Your task to perform on an android device: change alarm snooze length Image 0: 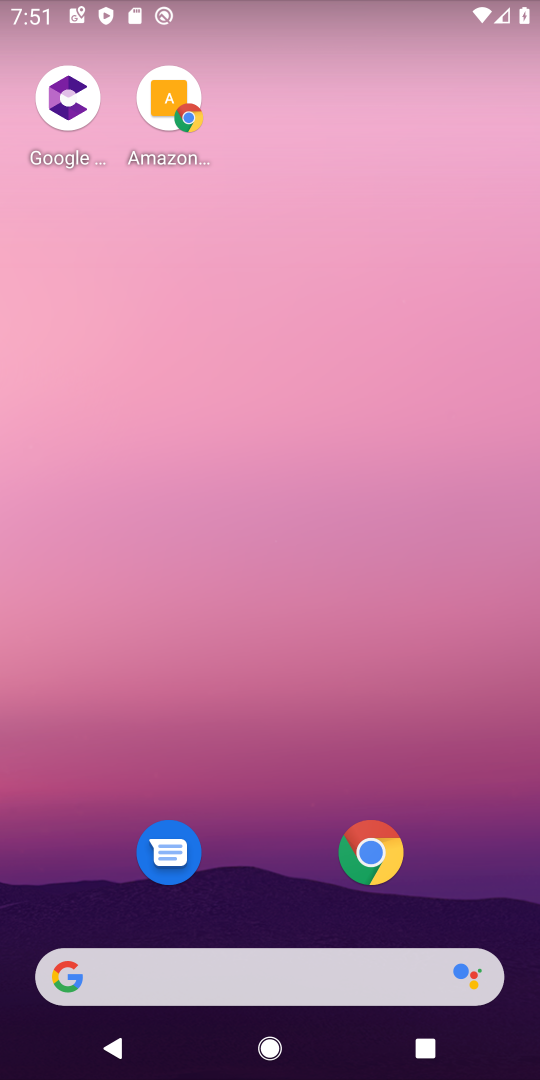
Step 0: drag from (278, 987) to (345, 228)
Your task to perform on an android device: change alarm snooze length Image 1: 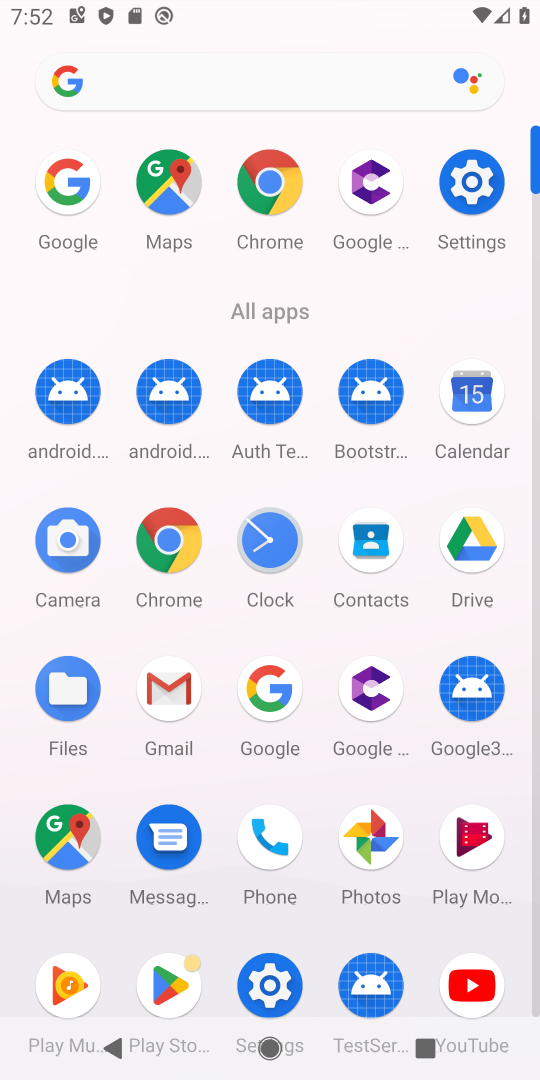
Step 1: click (272, 543)
Your task to perform on an android device: change alarm snooze length Image 2: 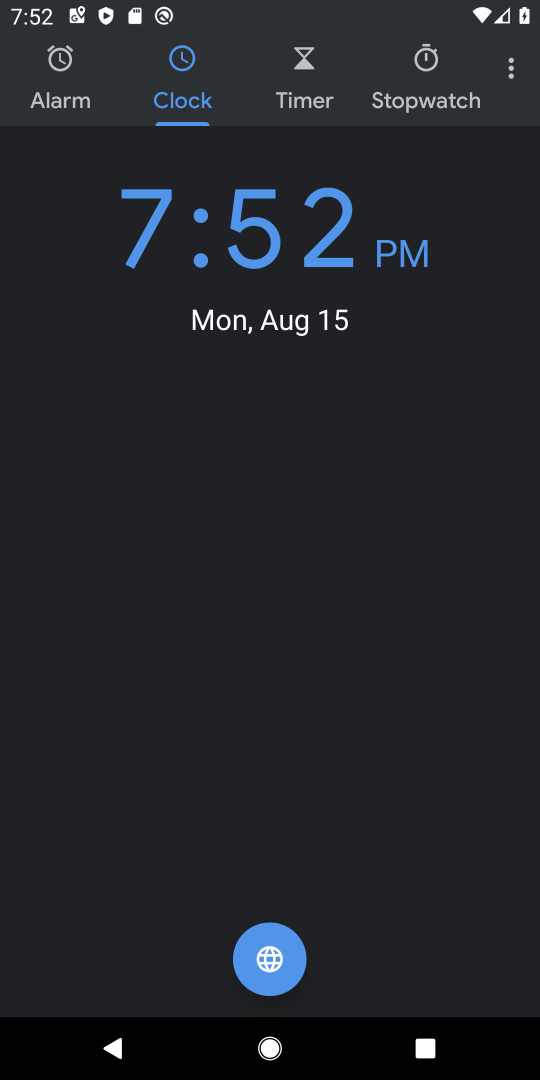
Step 2: click (513, 70)
Your task to perform on an android device: change alarm snooze length Image 3: 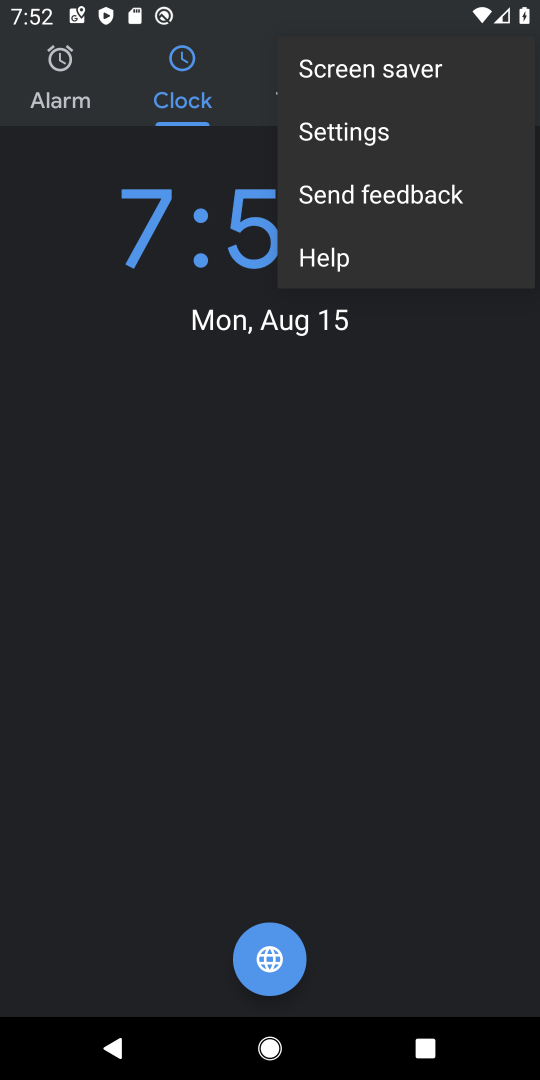
Step 3: click (396, 134)
Your task to perform on an android device: change alarm snooze length Image 4: 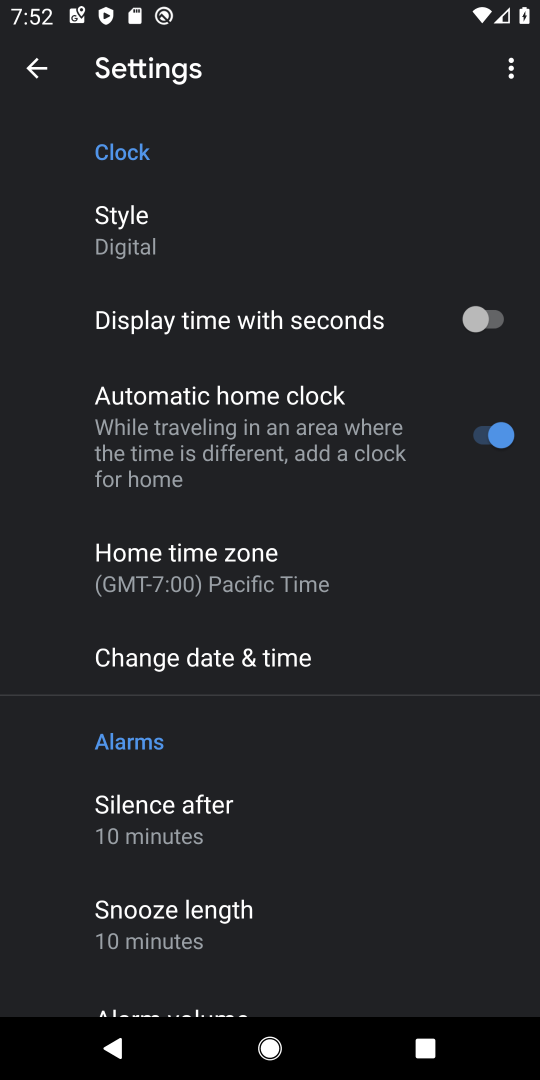
Step 4: click (255, 918)
Your task to perform on an android device: change alarm snooze length Image 5: 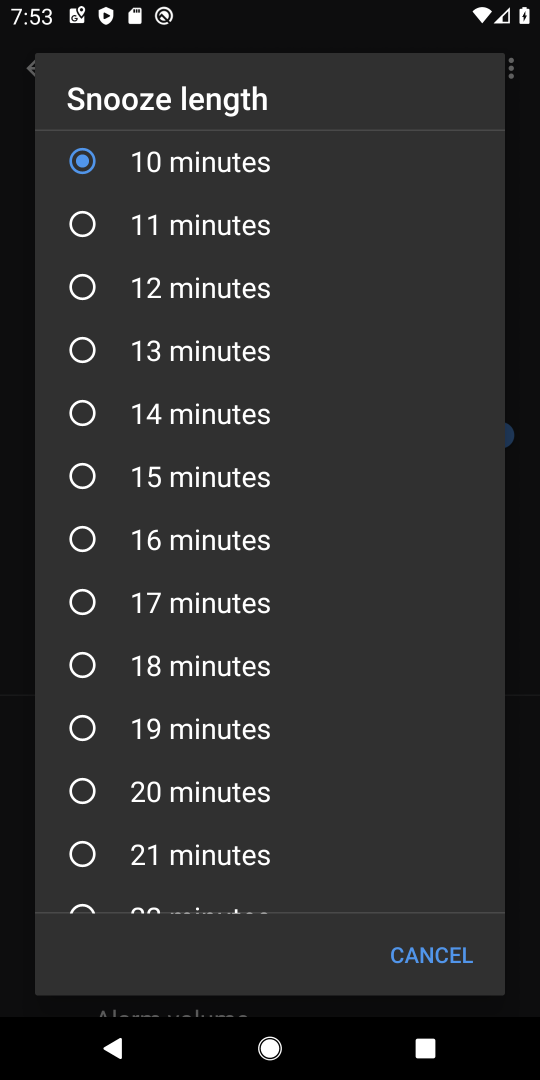
Step 5: drag from (253, 858) to (348, 674)
Your task to perform on an android device: change alarm snooze length Image 6: 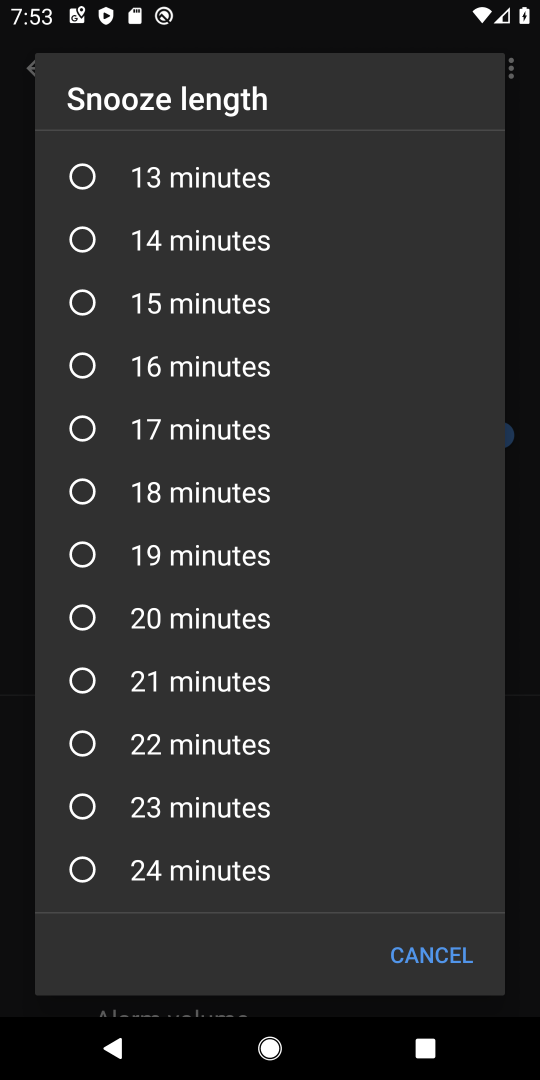
Step 6: click (221, 751)
Your task to perform on an android device: change alarm snooze length Image 7: 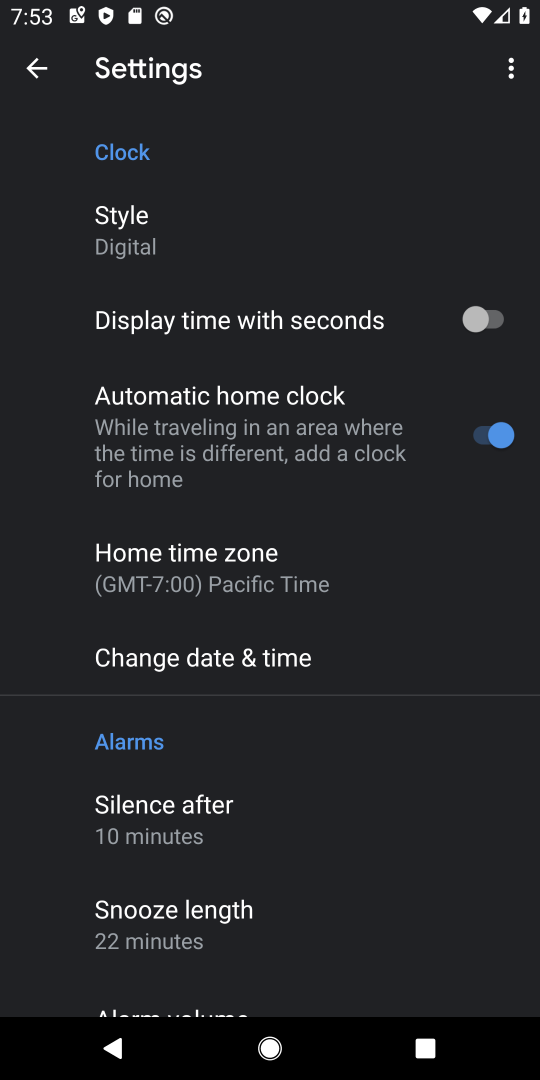
Step 7: task complete